Your task to perform on an android device: See recent photos Image 0: 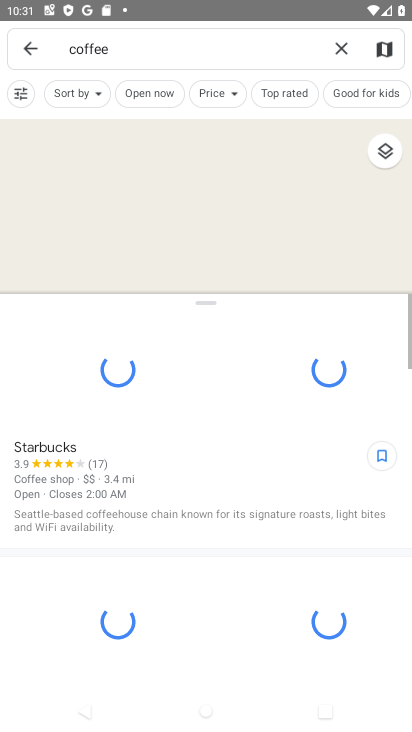
Step 0: press home button
Your task to perform on an android device: See recent photos Image 1: 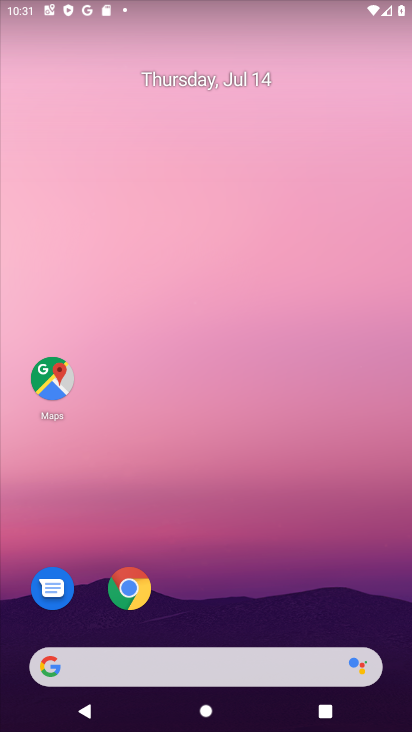
Step 1: drag from (167, 669) to (316, 161)
Your task to perform on an android device: See recent photos Image 2: 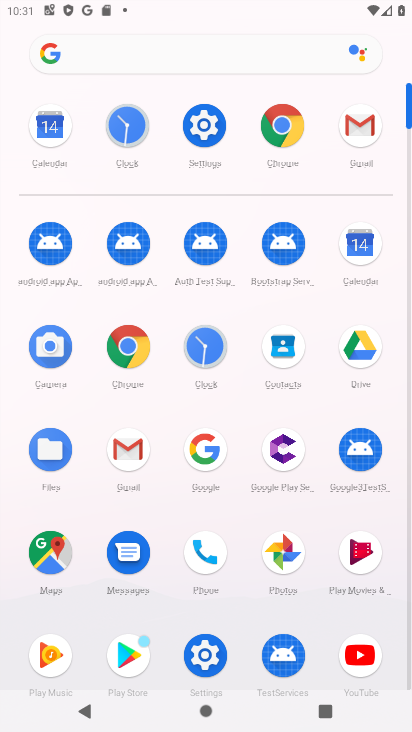
Step 2: click (285, 555)
Your task to perform on an android device: See recent photos Image 3: 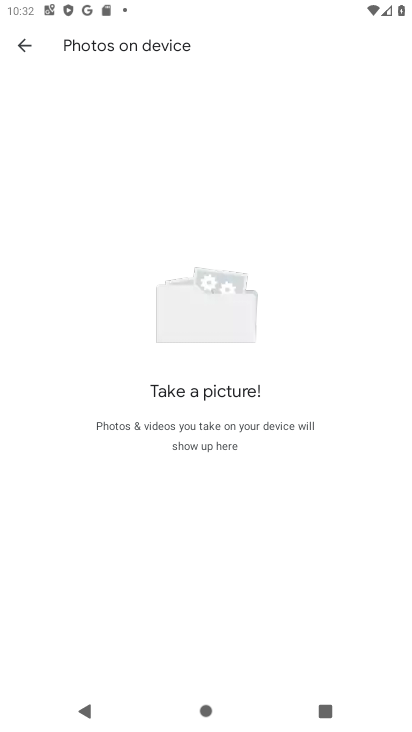
Step 3: click (25, 39)
Your task to perform on an android device: See recent photos Image 4: 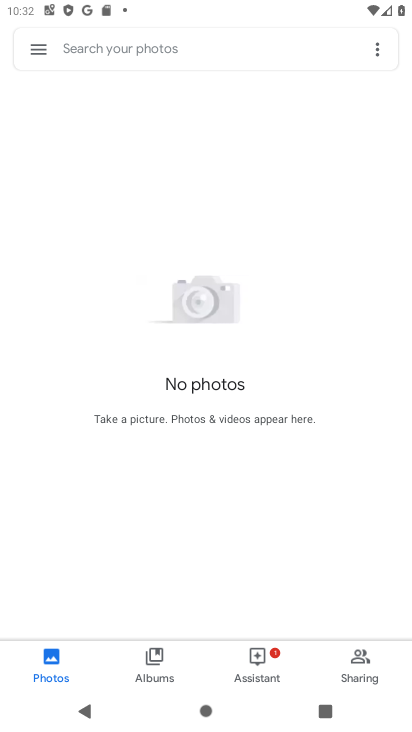
Step 4: click (161, 679)
Your task to perform on an android device: See recent photos Image 5: 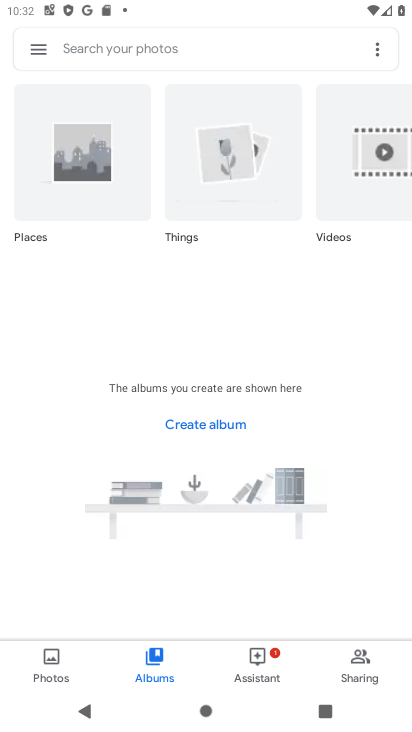
Step 5: task complete